Your task to perform on an android device: turn on improve location accuracy Image 0: 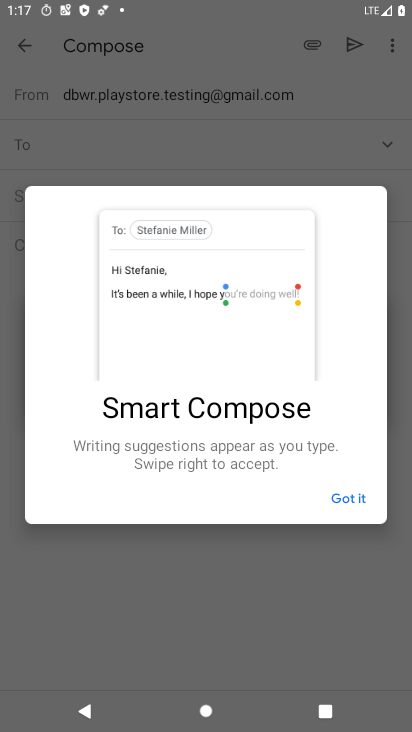
Step 0: press home button
Your task to perform on an android device: turn on improve location accuracy Image 1: 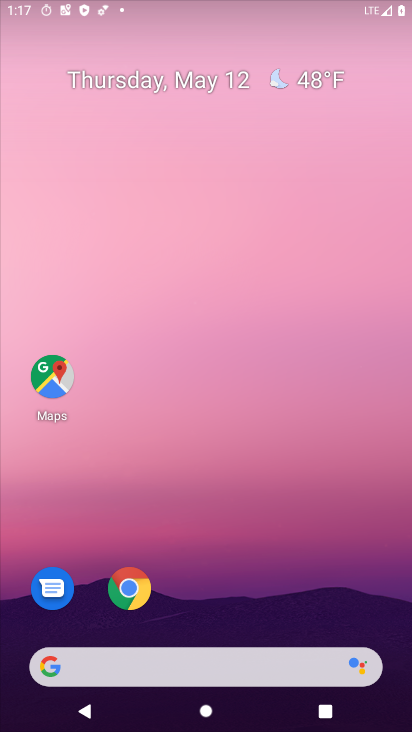
Step 1: drag from (200, 593) to (224, 61)
Your task to perform on an android device: turn on improve location accuracy Image 2: 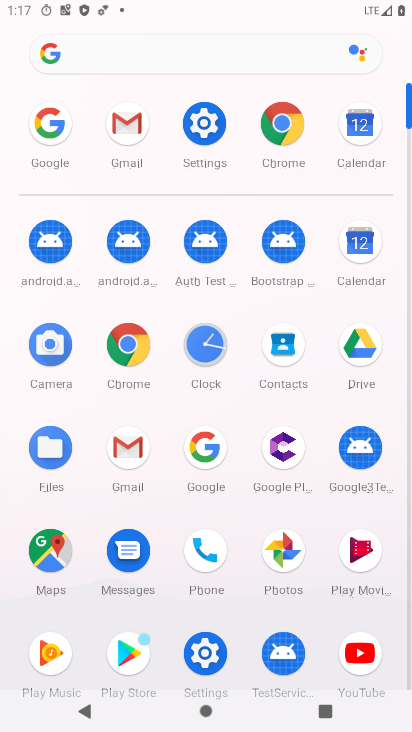
Step 2: click (199, 125)
Your task to perform on an android device: turn on improve location accuracy Image 3: 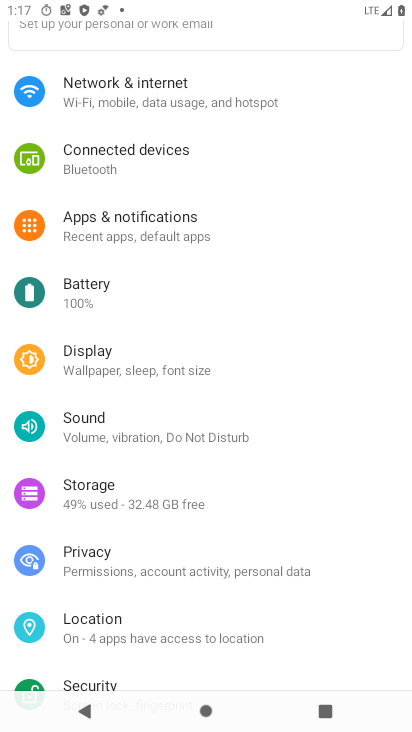
Step 3: click (126, 636)
Your task to perform on an android device: turn on improve location accuracy Image 4: 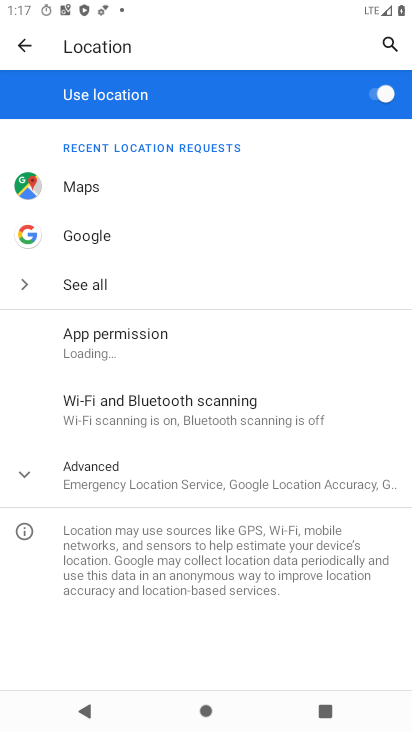
Step 4: click (131, 464)
Your task to perform on an android device: turn on improve location accuracy Image 5: 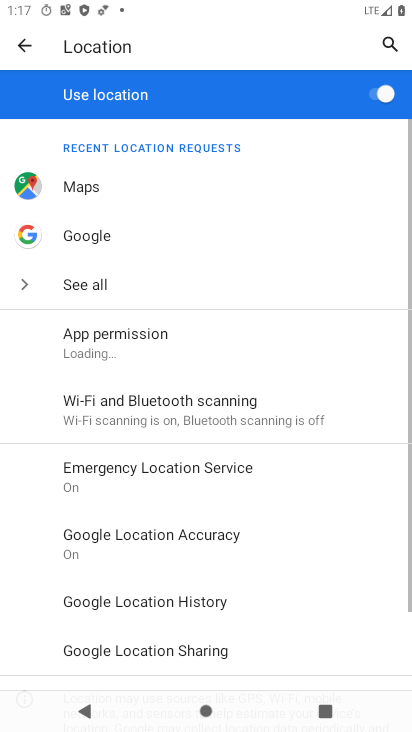
Step 5: task complete